Your task to perform on an android device: Open the stopwatch Image 0: 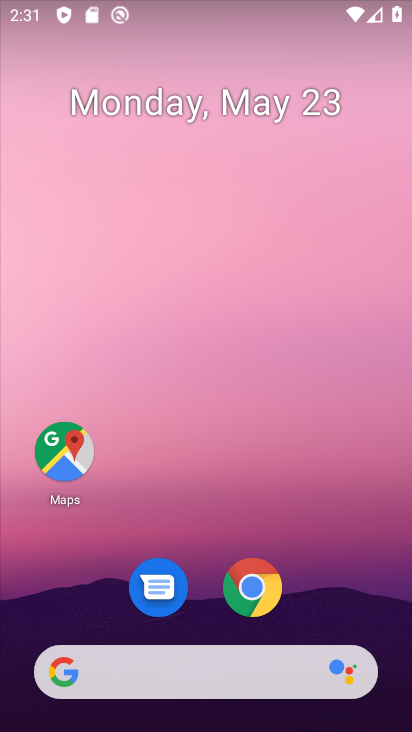
Step 0: drag from (212, 629) to (209, 270)
Your task to perform on an android device: Open the stopwatch Image 1: 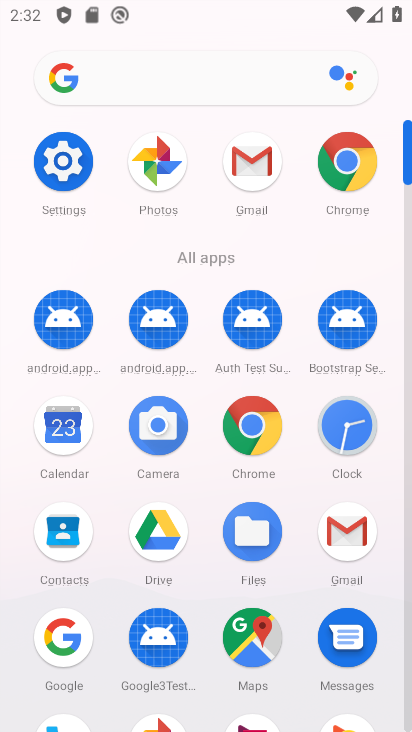
Step 1: click (345, 431)
Your task to perform on an android device: Open the stopwatch Image 2: 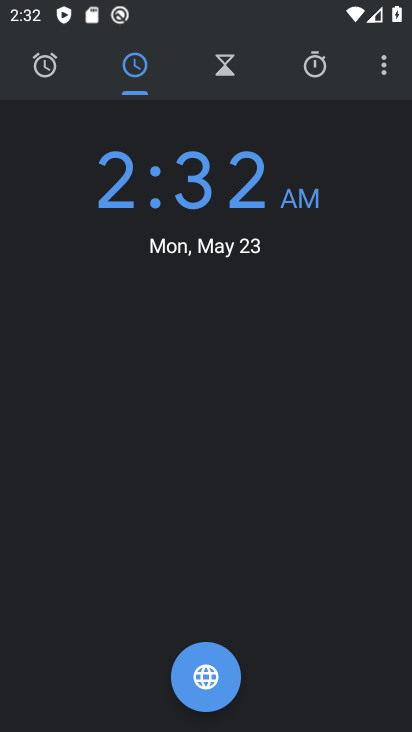
Step 2: click (316, 60)
Your task to perform on an android device: Open the stopwatch Image 3: 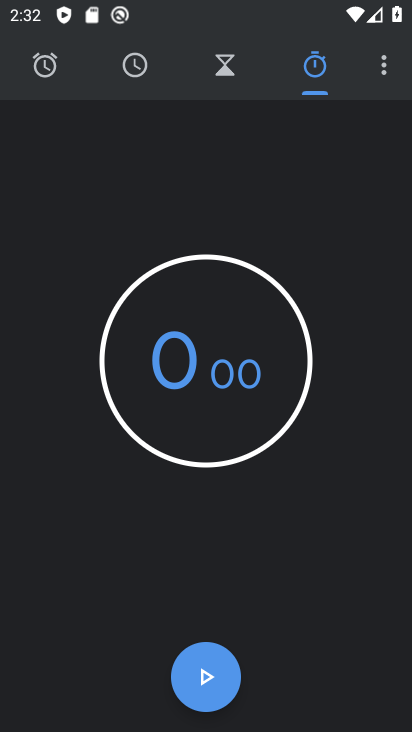
Step 3: task complete